Your task to perform on an android device: Open the calendar and show me this week's events Image 0: 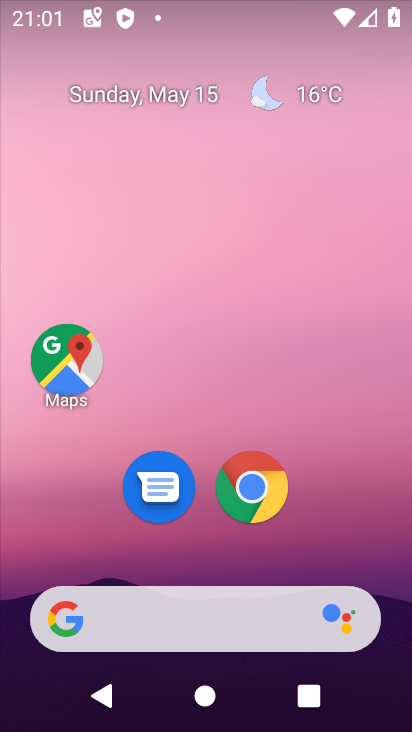
Step 0: drag from (392, 616) to (352, 26)
Your task to perform on an android device: Open the calendar and show me this week's events Image 1: 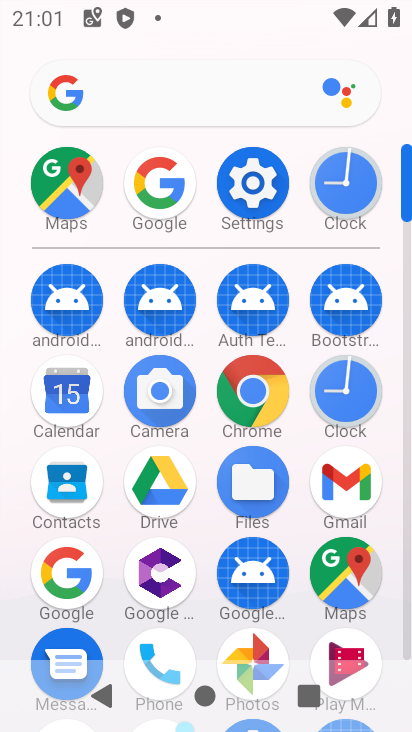
Step 1: click (69, 396)
Your task to perform on an android device: Open the calendar and show me this week's events Image 2: 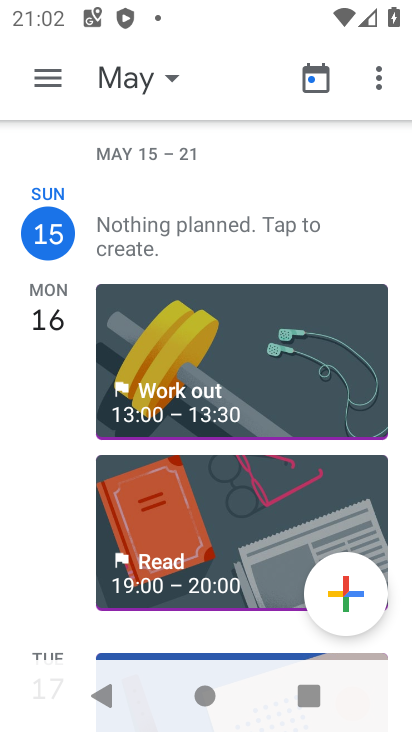
Step 2: click (46, 71)
Your task to perform on an android device: Open the calendar and show me this week's events Image 3: 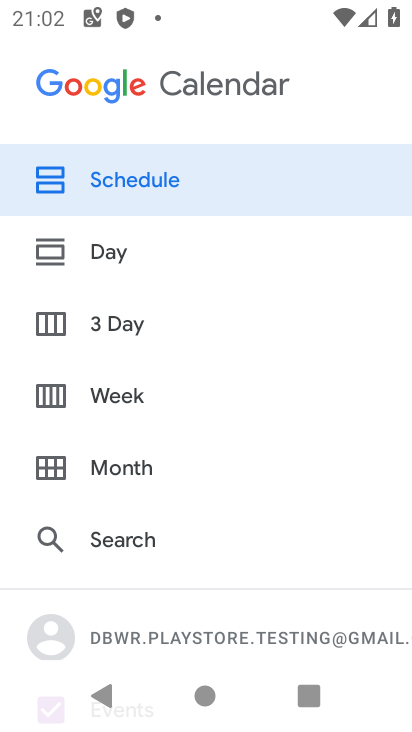
Step 3: click (59, 396)
Your task to perform on an android device: Open the calendar and show me this week's events Image 4: 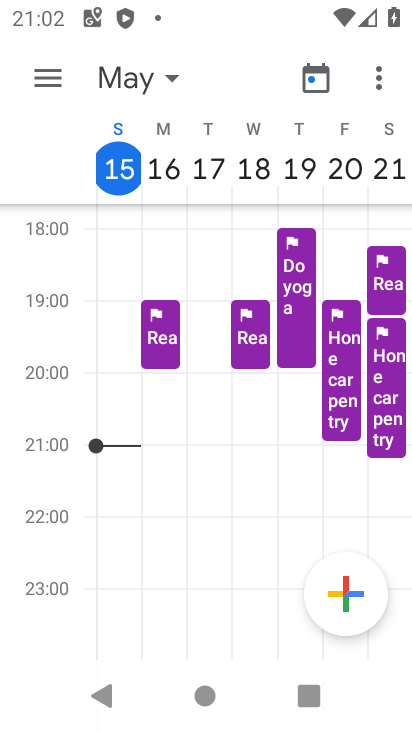
Step 4: task complete